Your task to perform on an android device: Empty the shopping cart on costco. Image 0: 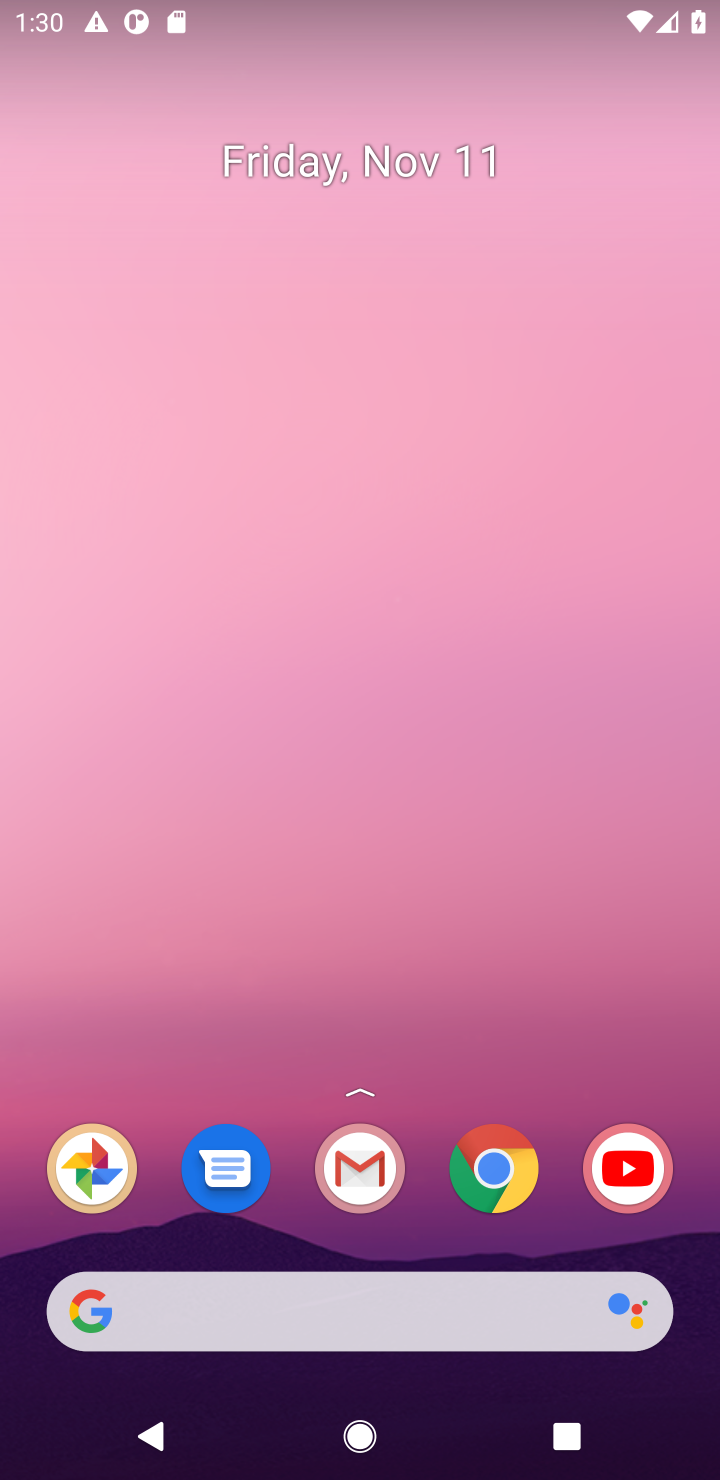
Step 0: click (493, 1181)
Your task to perform on an android device: Empty the shopping cart on costco. Image 1: 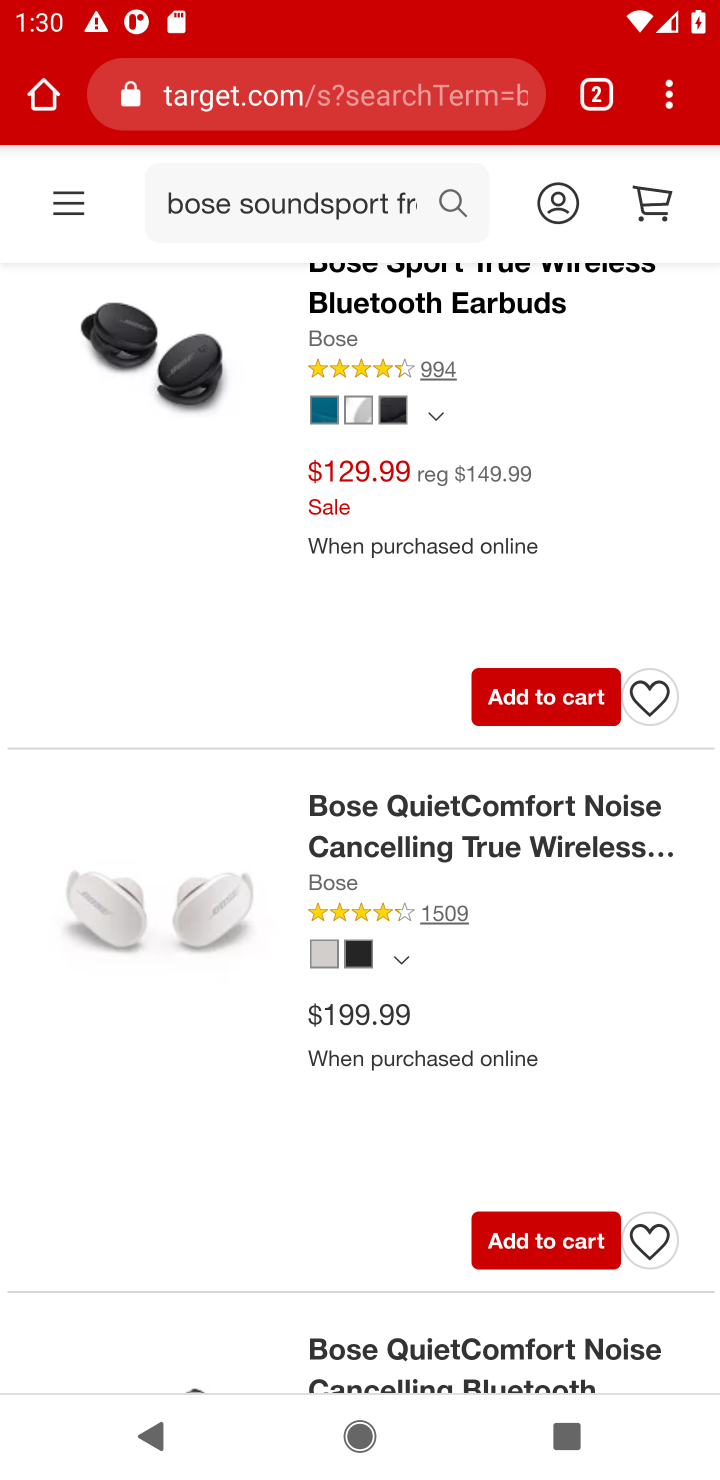
Step 1: click (319, 99)
Your task to perform on an android device: Empty the shopping cart on costco. Image 2: 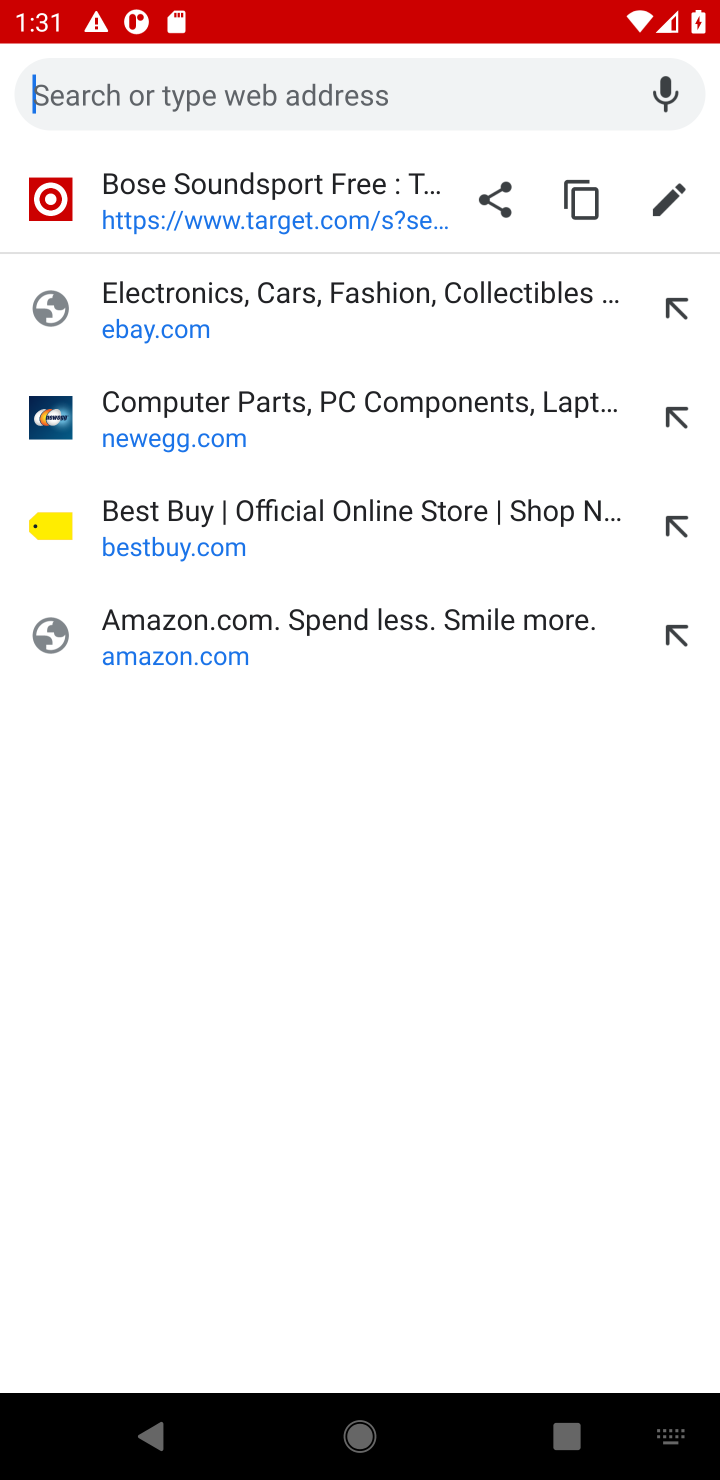
Step 2: type "costco.com"
Your task to perform on an android device: Empty the shopping cart on costco. Image 3: 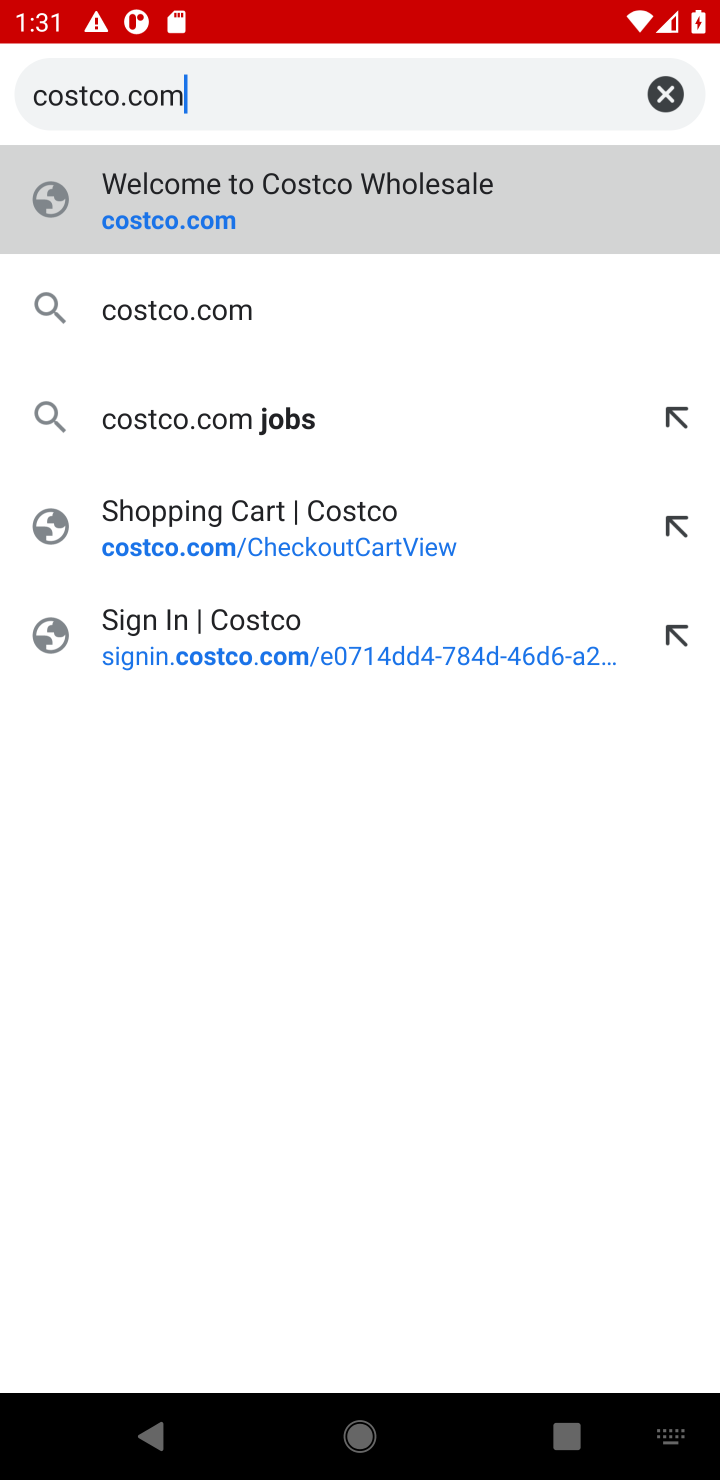
Step 3: click (149, 206)
Your task to perform on an android device: Empty the shopping cart on costco. Image 4: 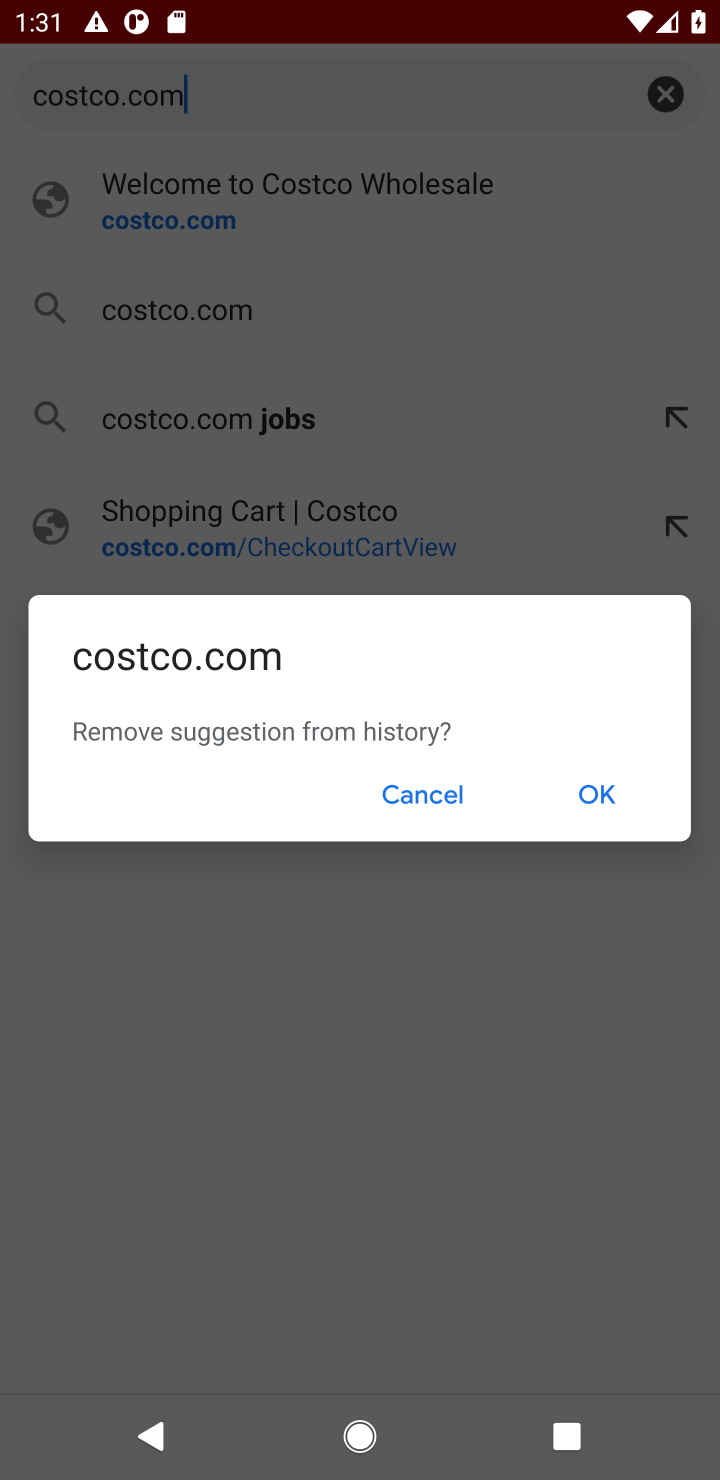
Step 4: click (428, 793)
Your task to perform on an android device: Empty the shopping cart on costco. Image 5: 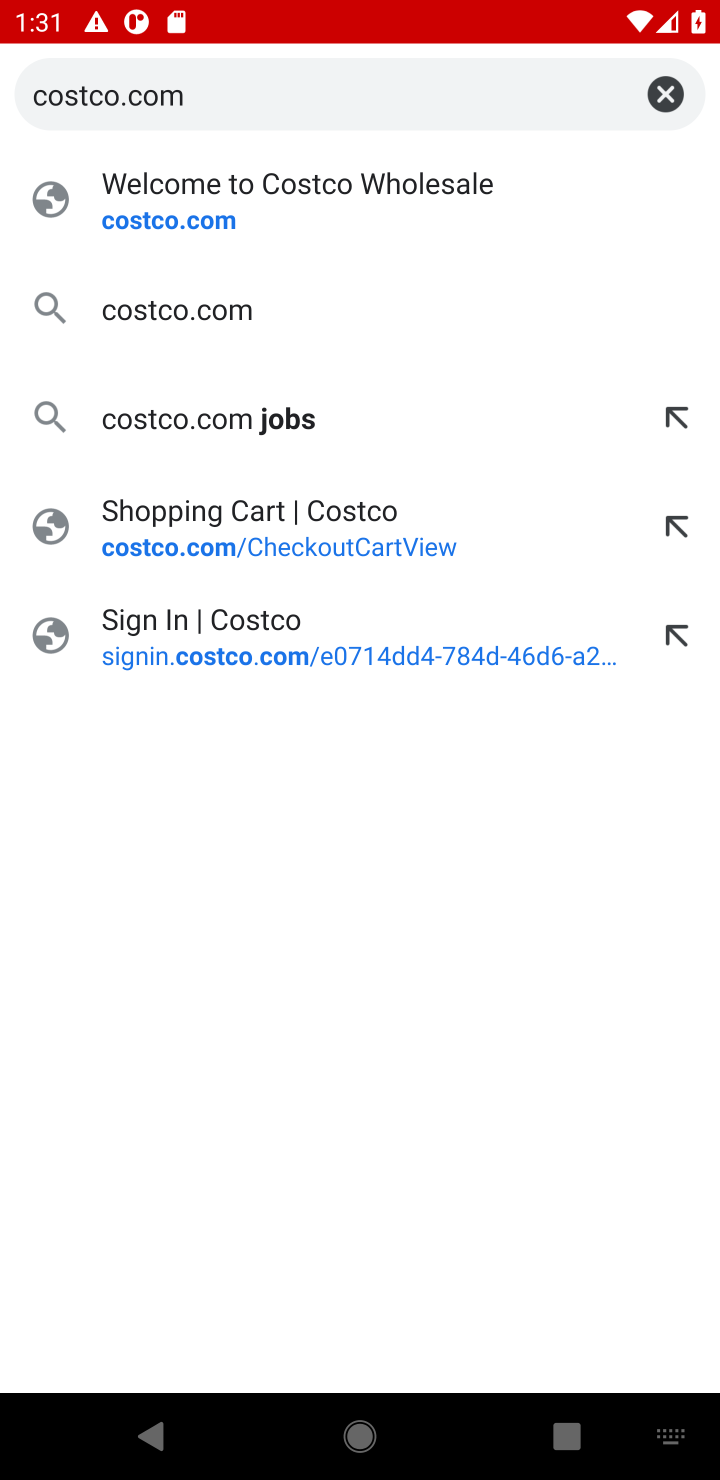
Step 5: click (206, 211)
Your task to perform on an android device: Empty the shopping cart on costco. Image 6: 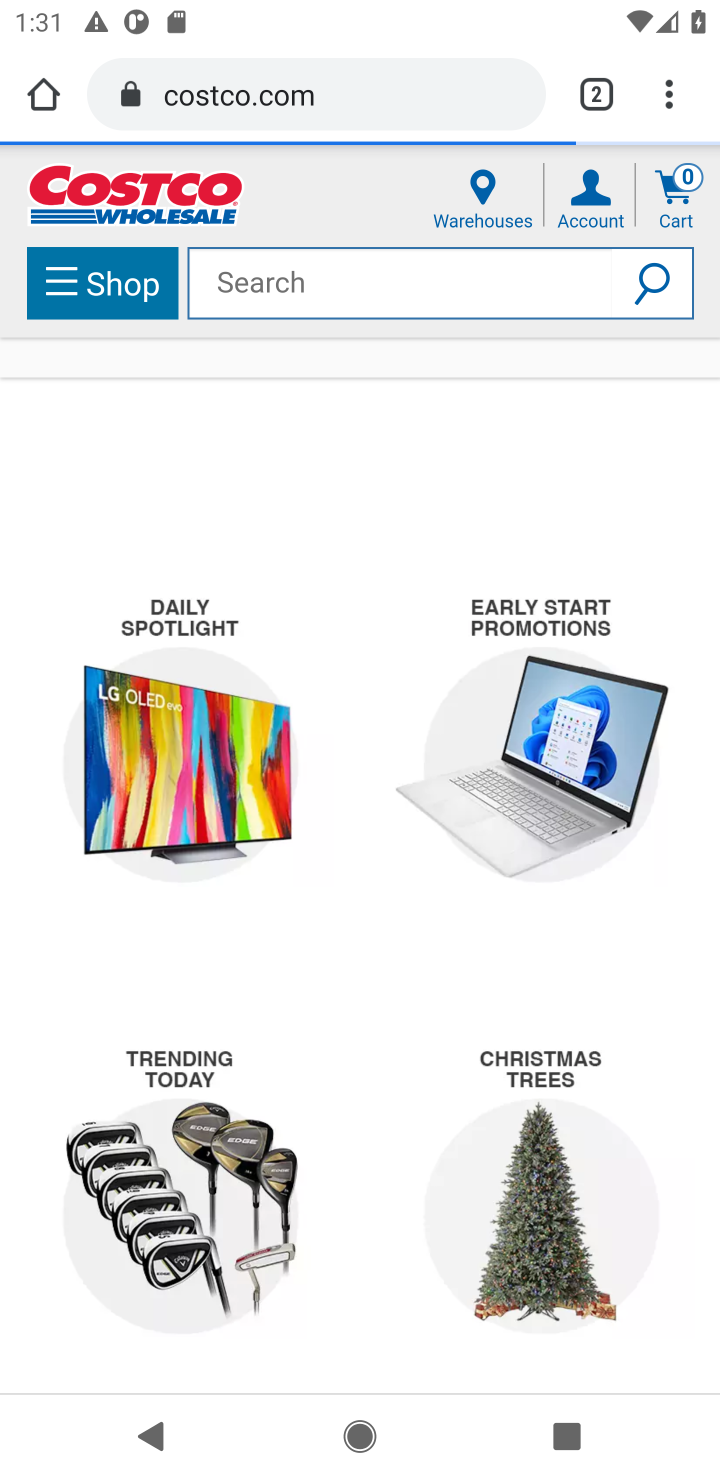
Step 6: click (684, 200)
Your task to perform on an android device: Empty the shopping cart on costco. Image 7: 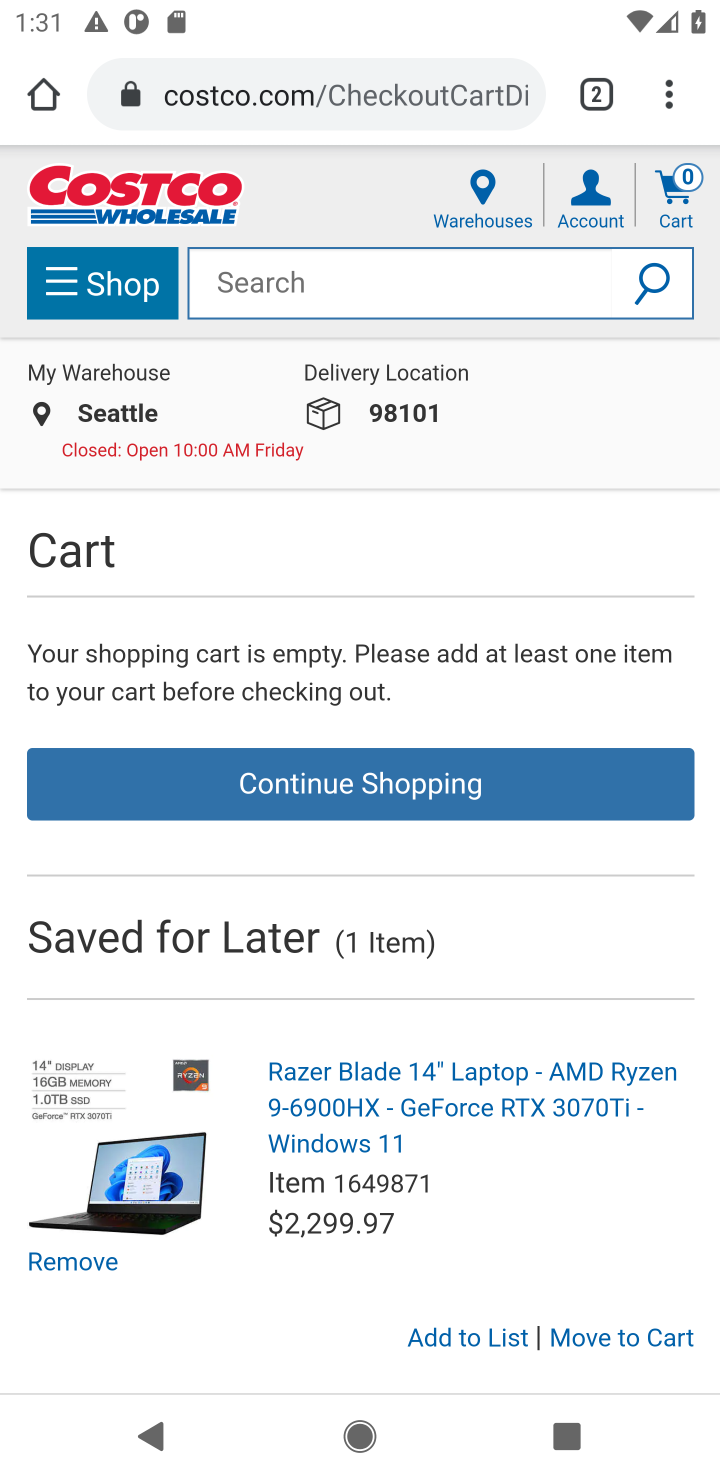
Step 7: task complete